Your task to perform on an android device: turn on javascript in the chrome app Image 0: 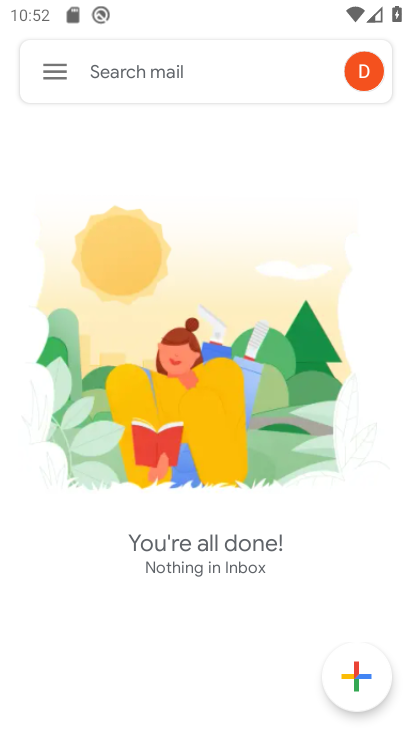
Step 0: press home button
Your task to perform on an android device: turn on javascript in the chrome app Image 1: 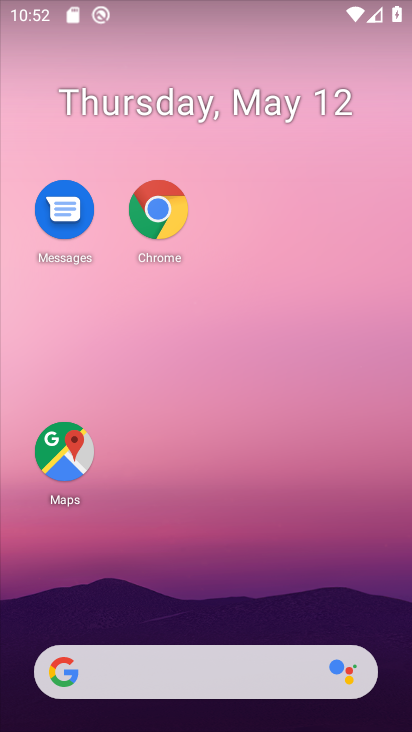
Step 1: click (153, 229)
Your task to perform on an android device: turn on javascript in the chrome app Image 2: 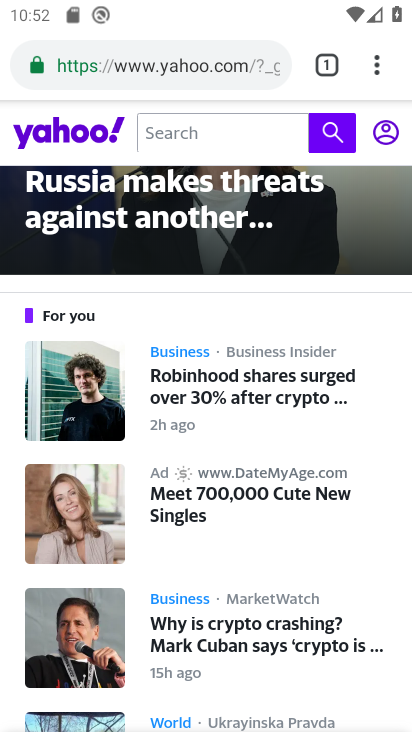
Step 2: click (380, 79)
Your task to perform on an android device: turn on javascript in the chrome app Image 3: 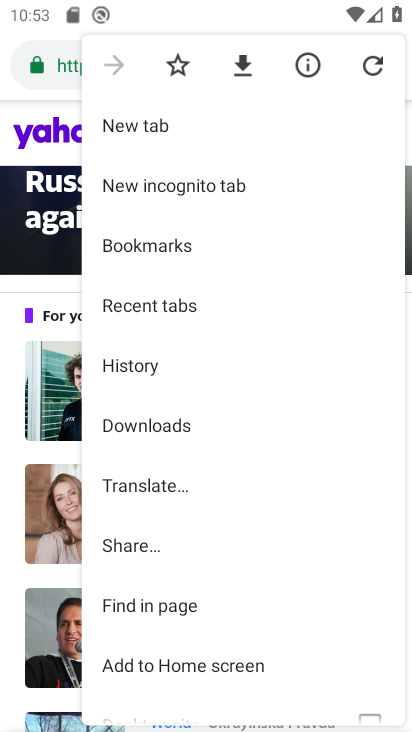
Step 3: drag from (181, 636) to (189, 79)
Your task to perform on an android device: turn on javascript in the chrome app Image 4: 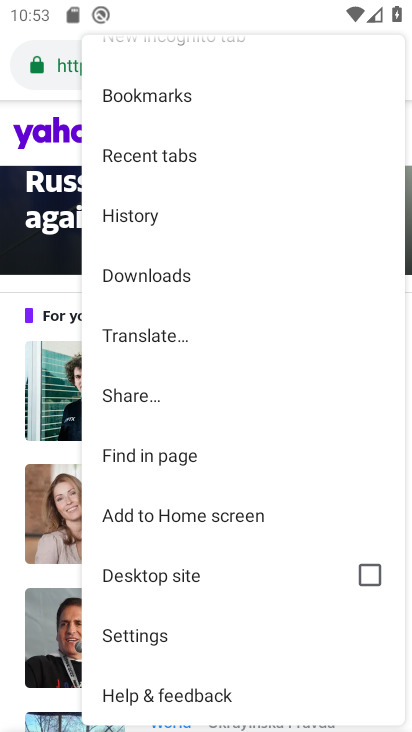
Step 4: click (147, 627)
Your task to perform on an android device: turn on javascript in the chrome app Image 5: 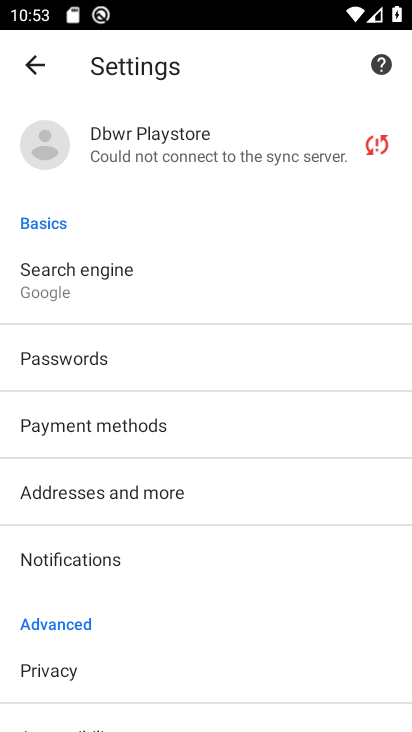
Step 5: drag from (134, 644) to (171, 146)
Your task to perform on an android device: turn on javascript in the chrome app Image 6: 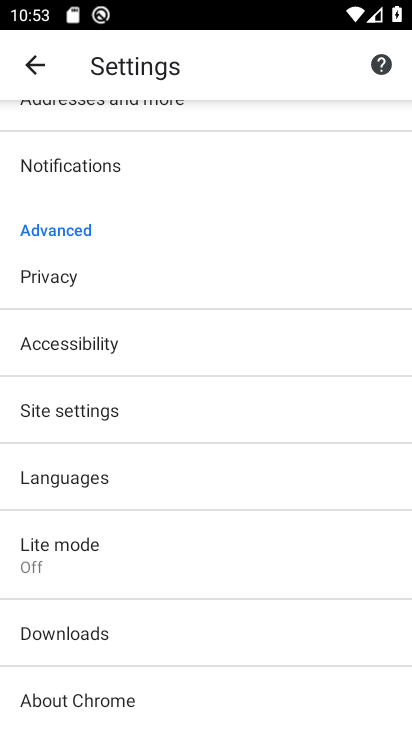
Step 6: click (77, 416)
Your task to perform on an android device: turn on javascript in the chrome app Image 7: 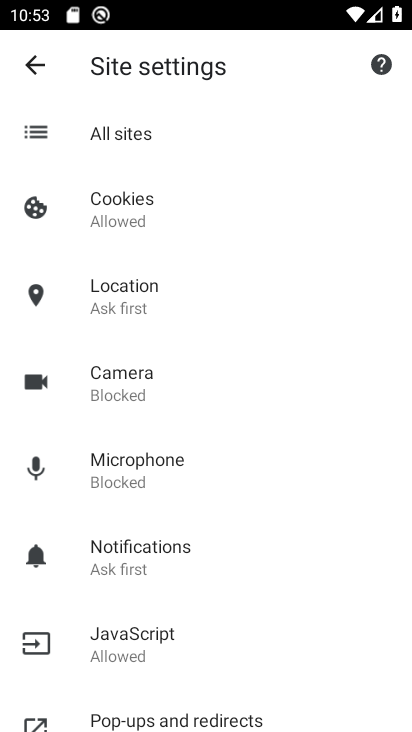
Step 7: drag from (147, 662) to (160, 134)
Your task to perform on an android device: turn on javascript in the chrome app Image 8: 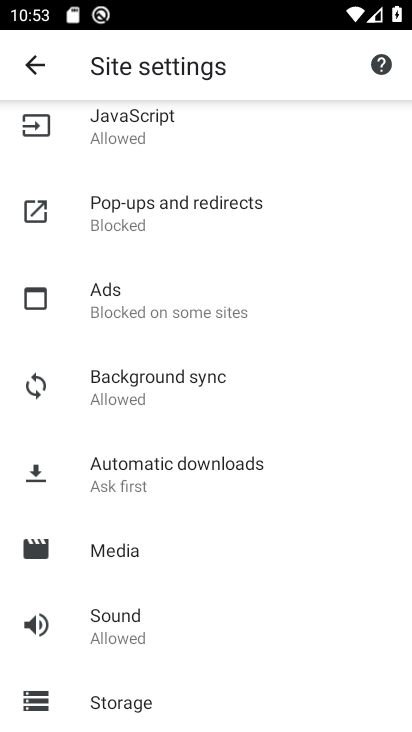
Step 8: click (114, 123)
Your task to perform on an android device: turn on javascript in the chrome app Image 9: 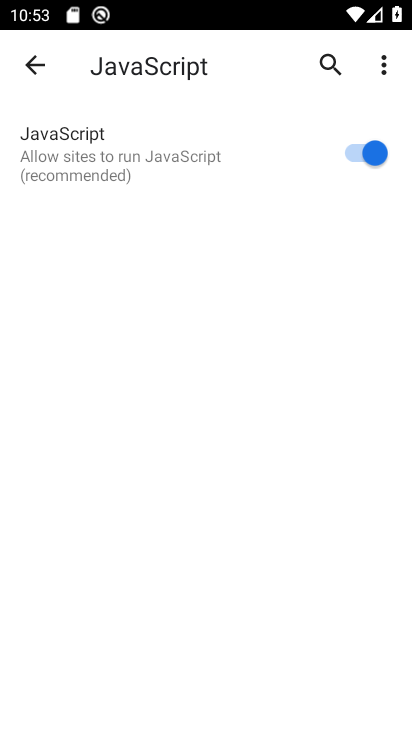
Step 9: task complete